Your task to perform on an android device: find which apps use the phone's location Image 0: 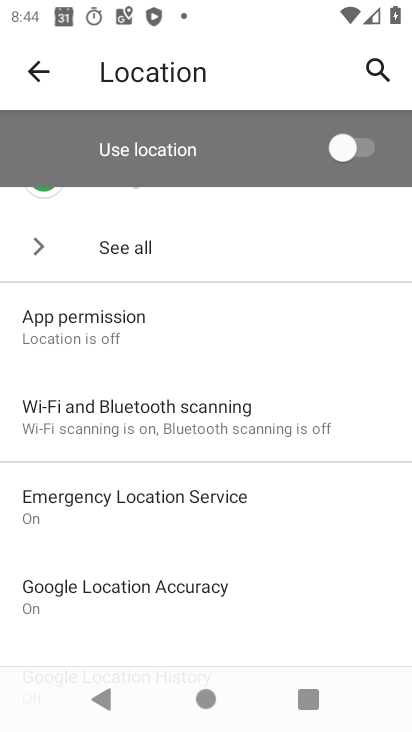
Step 0: press home button
Your task to perform on an android device: find which apps use the phone's location Image 1: 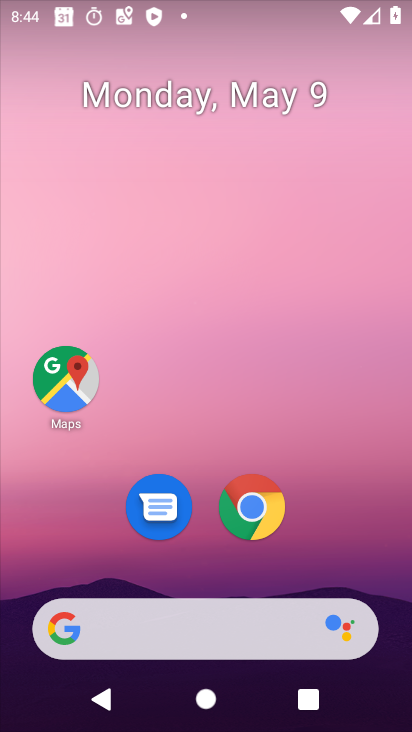
Step 1: drag from (280, 654) to (298, 334)
Your task to perform on an android device: find which apps use the phone's location Image 2: 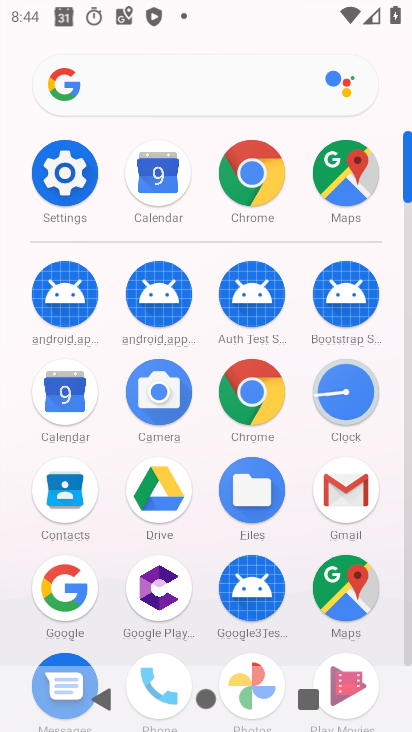
Step 2: click (64, 158)
Your task to perform on an android device: find which apps use the phone's location Image 3: 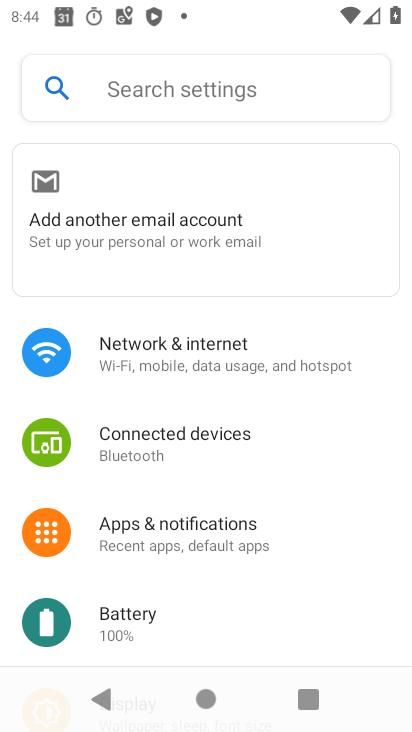
Step 3: click (170, 85)
Your task to perform on an android device: find which apps use the phone's location Image 4: 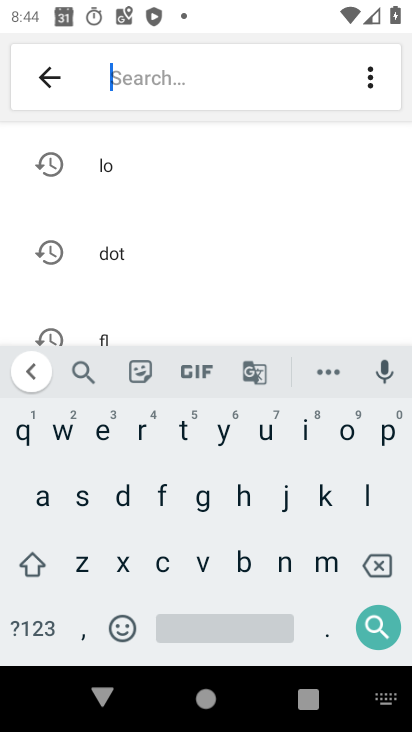
Step 4: click (96, 170)
Your task to perform on an android device: find which apps use the phone's location Image 5: 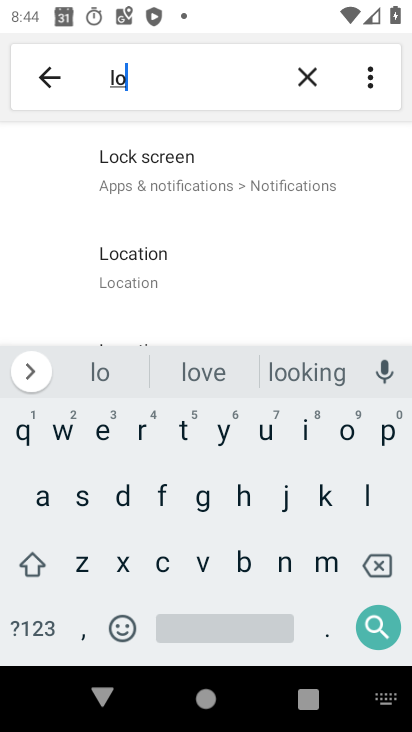
Step 5: click (159, 267)
Your task to perform on an android device: find which apps use the phone's location Image 6: 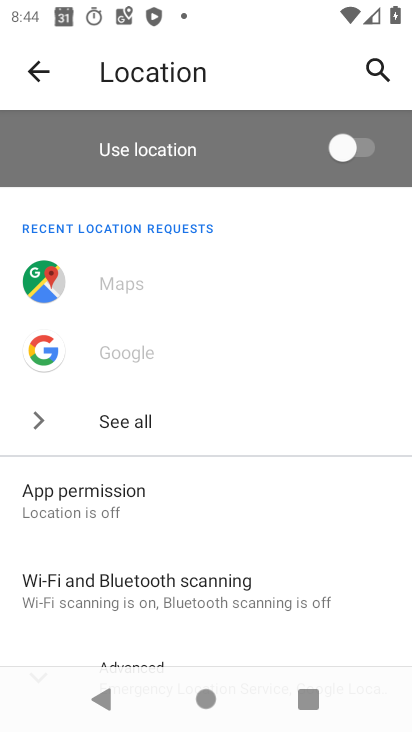
Step 6: task complete